Your task to perform on an android device: Open Google Chrome Image 0: 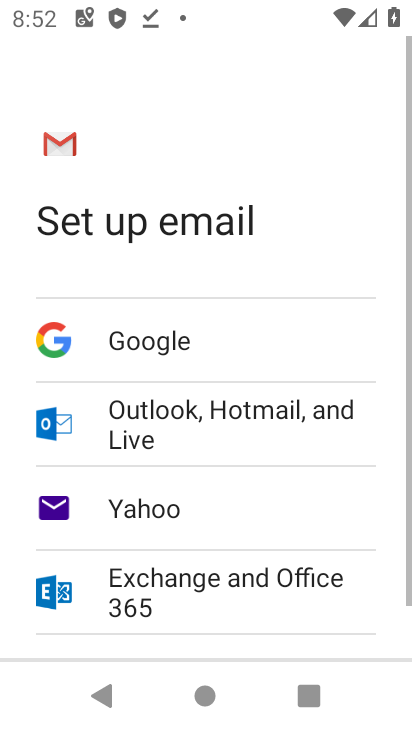
Step 0: press back button
Your task to perform on an android device: Open Google Chrome Image 1: 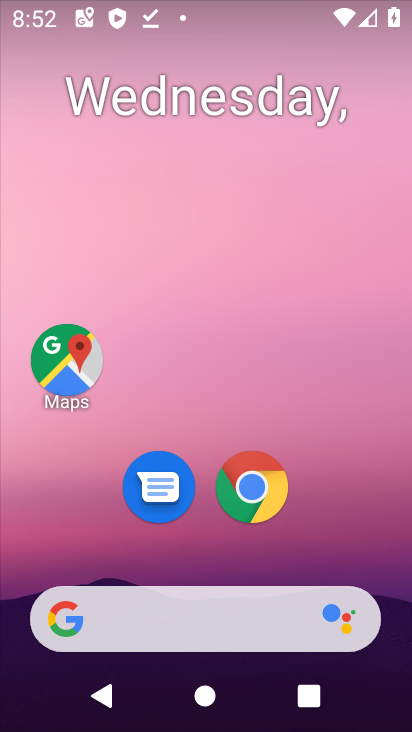
Step 1: drag from (270, 656) to (283, 55)
Your task to perform on an android device: Open Google Chrome Image 2: 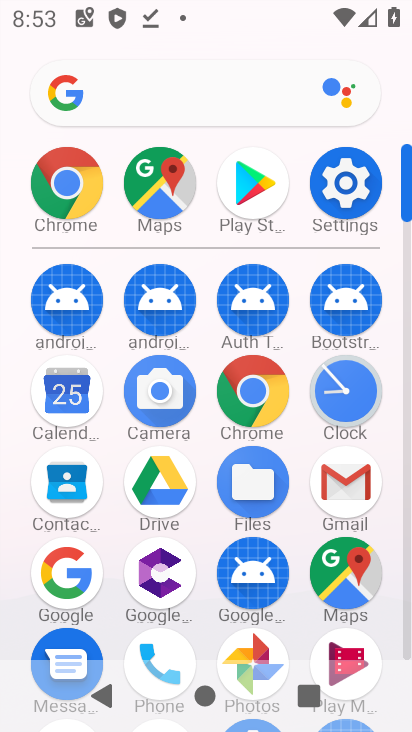
Step 2: click (69, 186)
Your task to perform on an android device: Open Google Chrome Image 3: 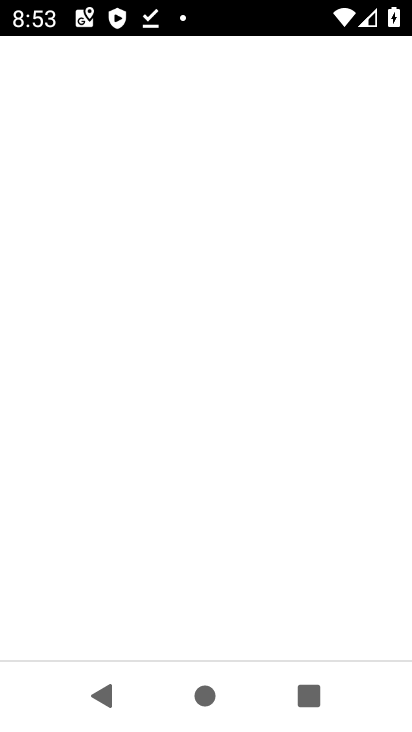
Step 3: click (69, 189)
Your task to perform on an android device: Open Google Chrome Image 4: 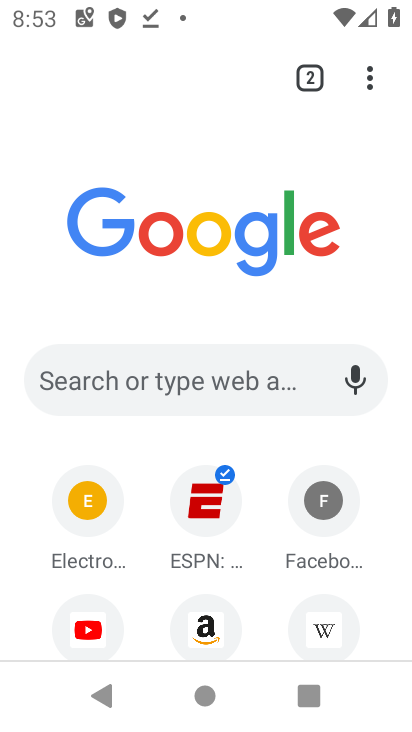
Step 4: task complete